Your task to perform on an android device: Go to Amazon Image 0: 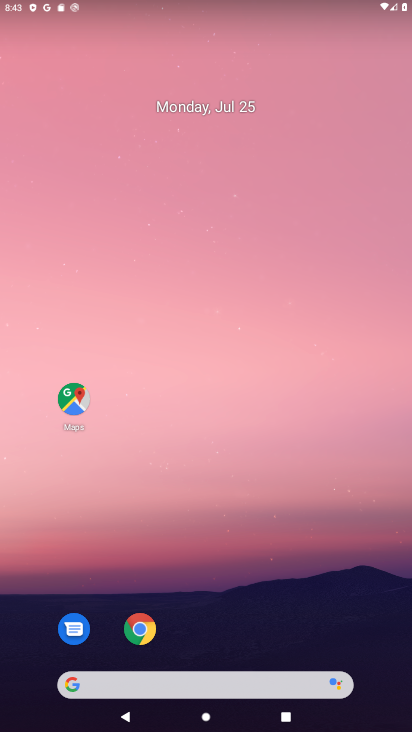
Step 0: click (130, 619)
Your task to perform on an android device: Go to Amazon Image 1: 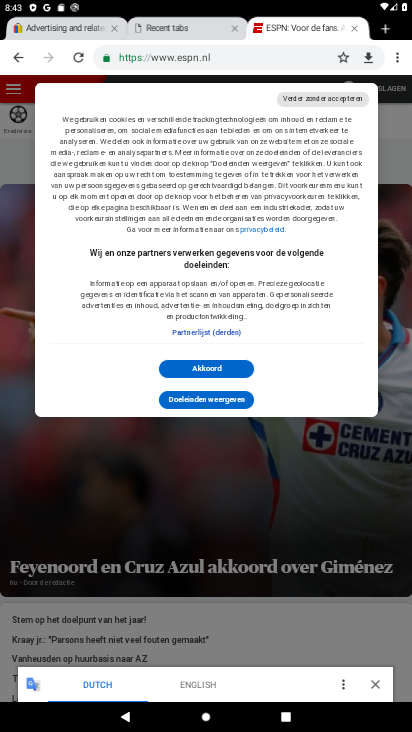
Step 1: click (386, 30)
Your task to perform on an android device: Go to Amazon Image 2: 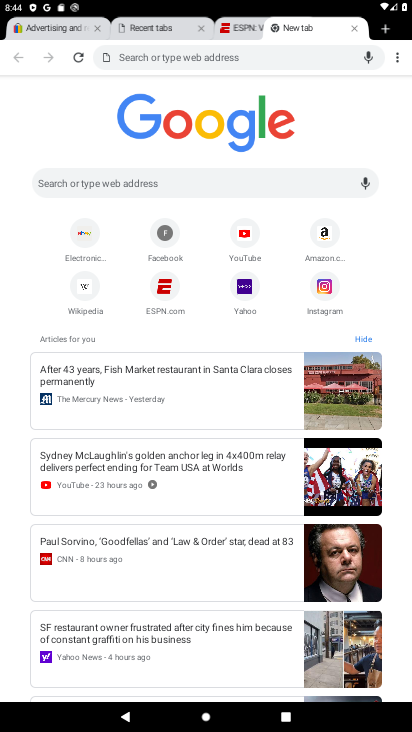
Step 2: click (328, 235)
Your task to perform on an android device: Go to Amazon Image 3: 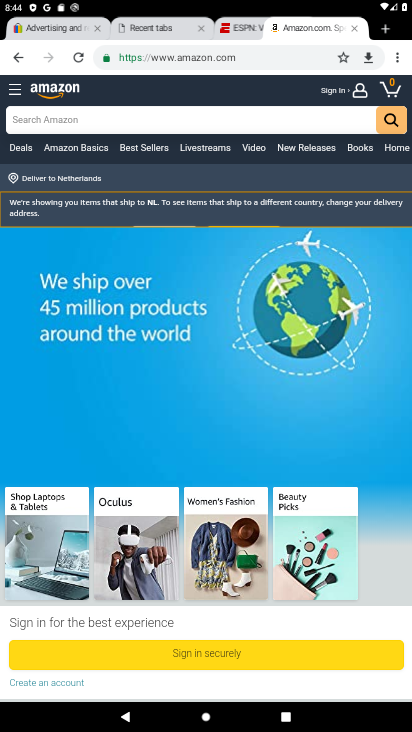
Step 3: task complete